Your task to perform on an android device: Open Chrome and go to settings Image 0: 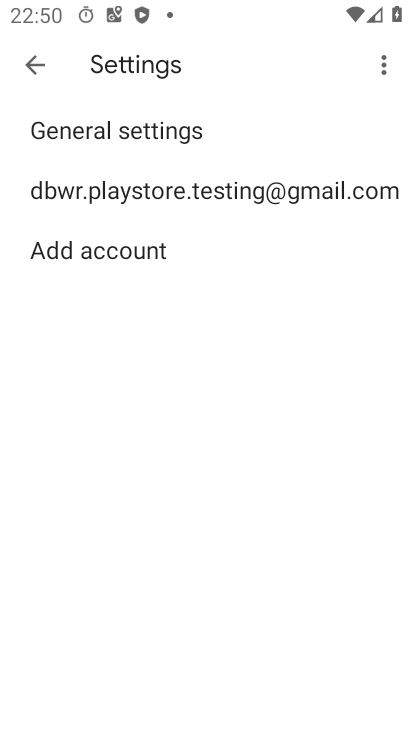
Step 0: press home button
Your task to perform on an android device: Open Chrome and go to settings Image 1: 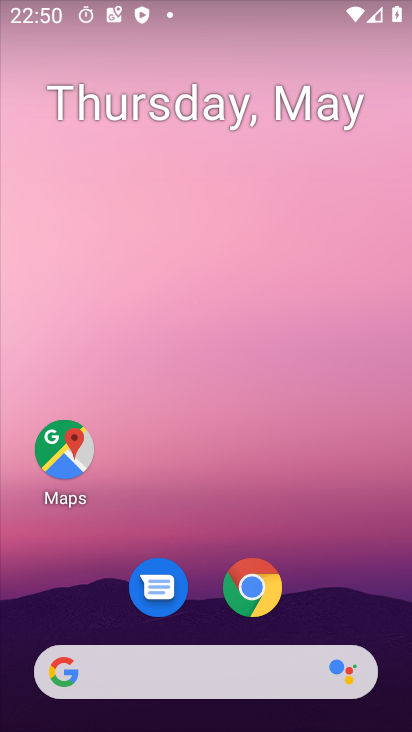
Step 1: click (257, 582)
Your task to perform on an android device: Open Chrome and go to settings Image 2: 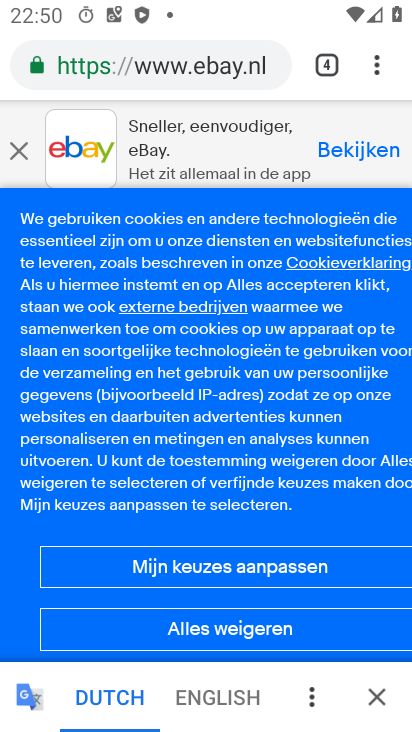
Step 2: click (376, 74)
Your task to perform on an android device: Open Chrome and go to settings Image 3: 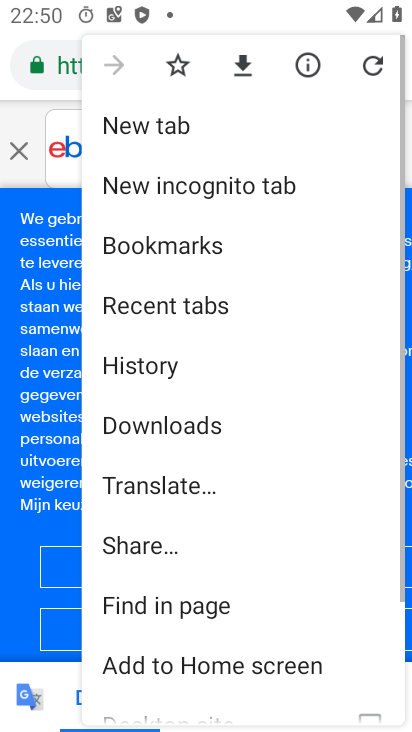
Step 3: drag from (223, 540) to (211, 238)
Your task to perform on an android device: Open Chrome and go to settings Image 4: 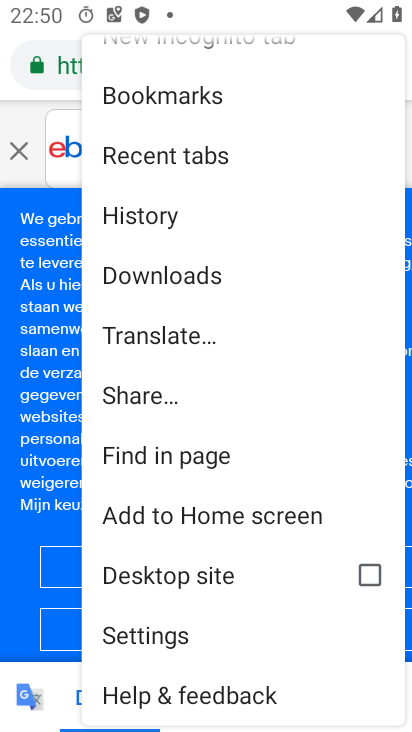
Step 4: click (119, 639)
Your task to perform on an android device: Open Chrome and go to settings Image 5: 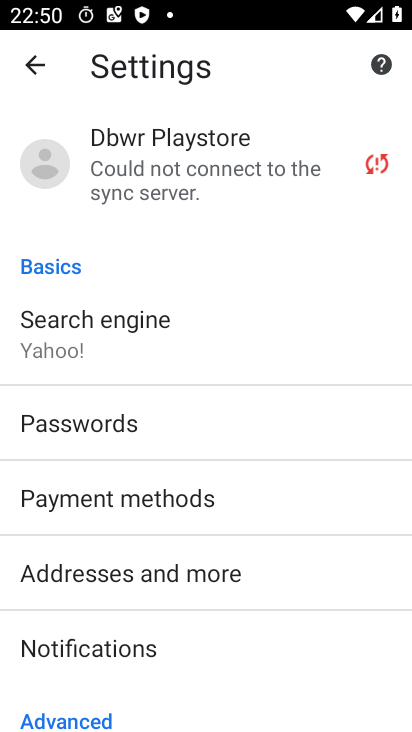
Step 5: task complete